Your task to perform on an android device: Open ESPN.com Image 0: 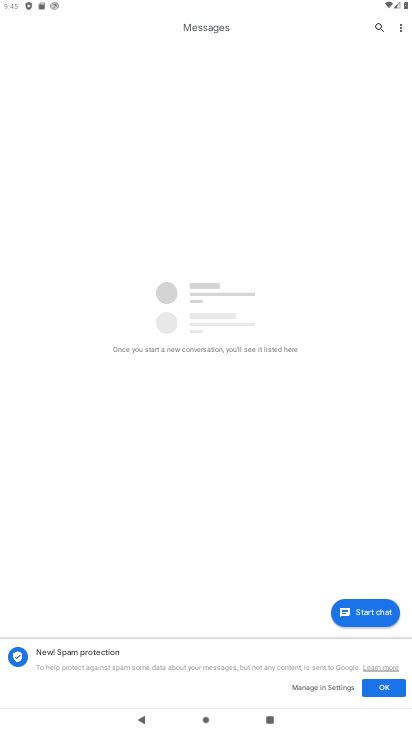
Step 0: press home button
Your task to perform on an android device: Open ESPN.com Image 1: 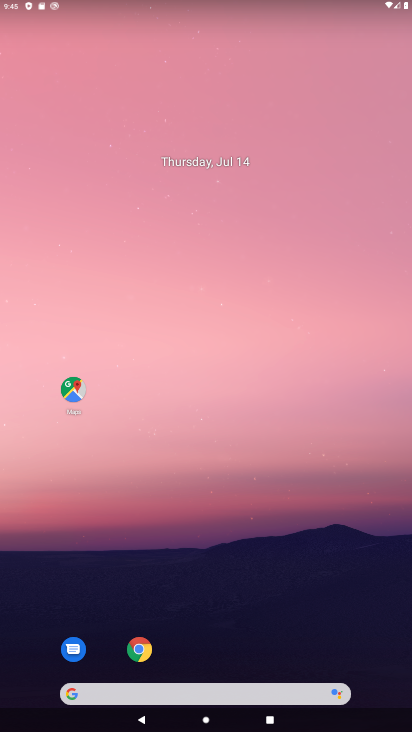
Step 1: click (143, 645)
Your task to perform on an android device: Open ESPN.com Image 2: 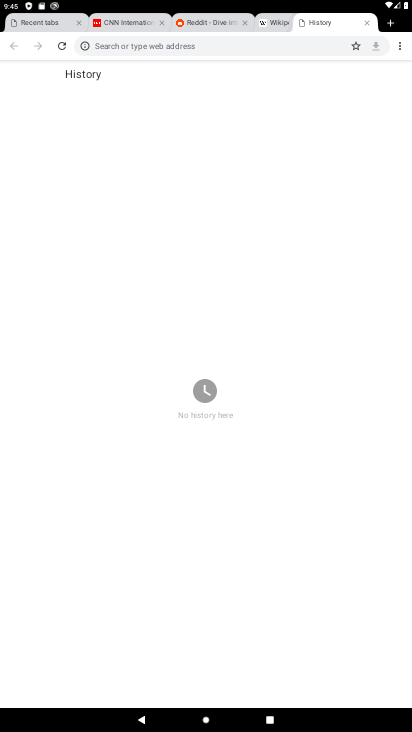
Step 2: click (388, 23)
Your task to perform on an android device: Open ESPN.com Image 3: 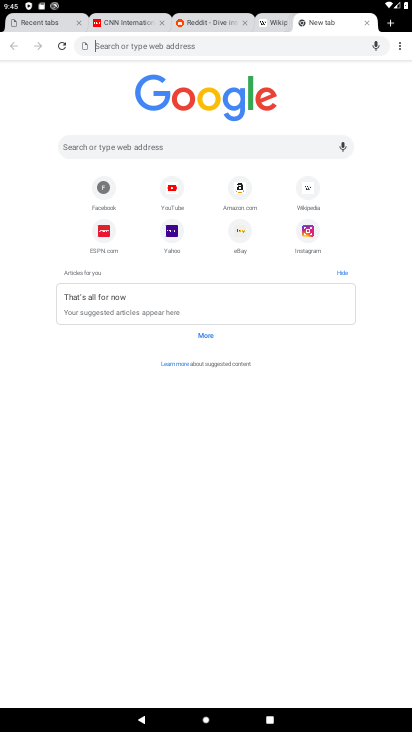
Step 3: type "ESPN.com"
Your task to perform on an android device: Open ESPN.com Image 4: 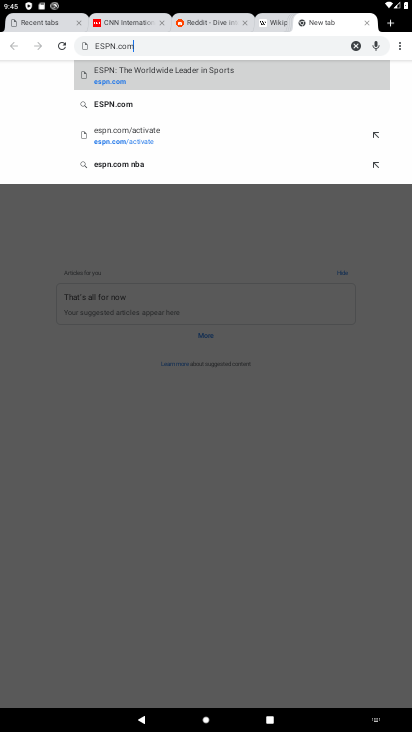
Step 4: click (102, 76)
Your task to perform on an android device: Open ESPN.com Image 5: 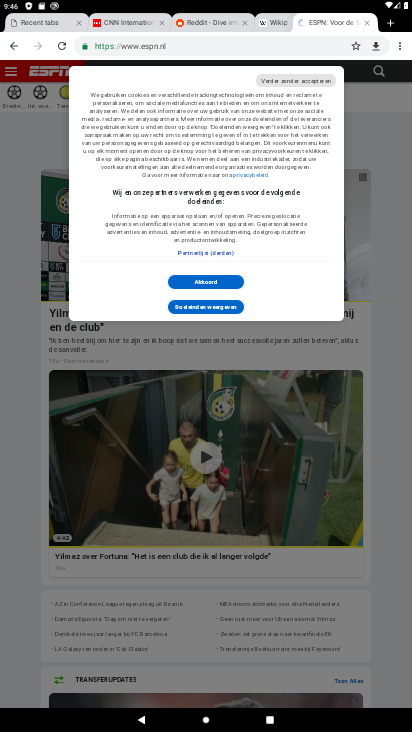
Step 5: click (217, 277)
Your task to perform on an android device: Open ESPN.com Image 6: 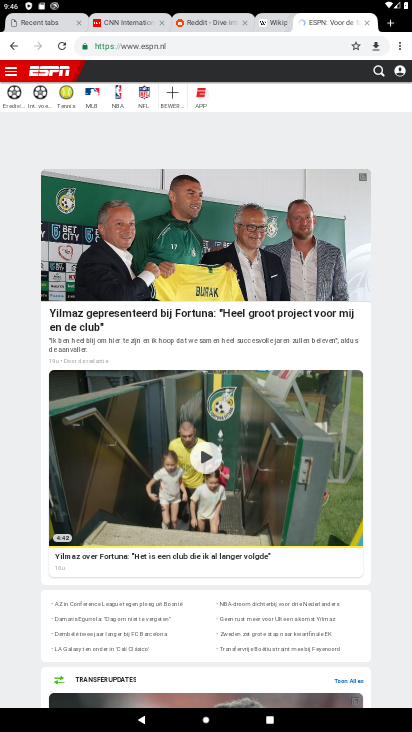
Step 6: task complete